Your task to perform on an android device: Go to Maps Image 0: 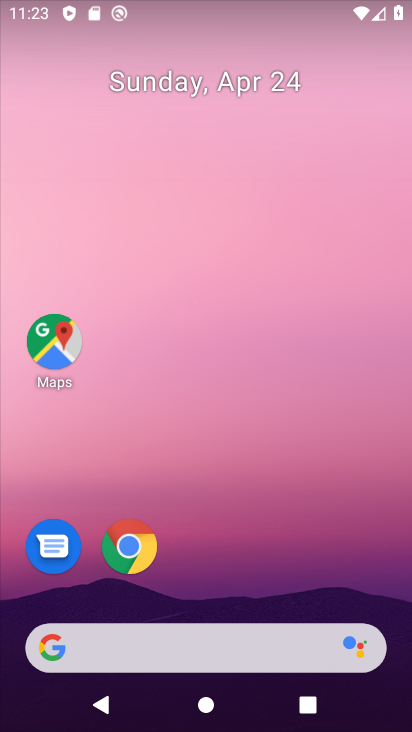
Step 0: click (64, 343)
Your task to perform on an android device: Go to Maps Image 1: 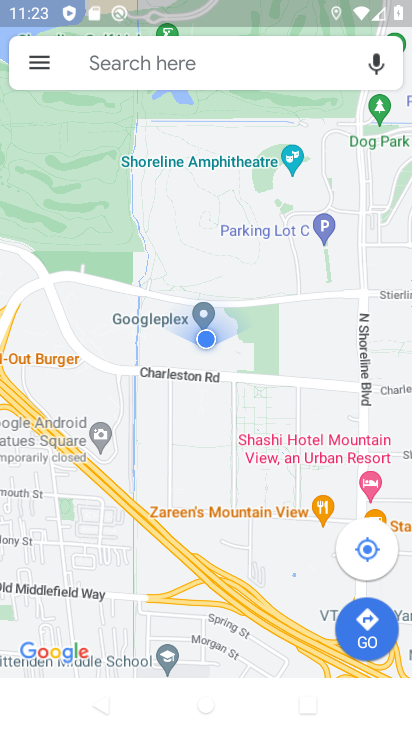
Step 1: task complete